Your task to perform on an android device: Open eBay Image 0: 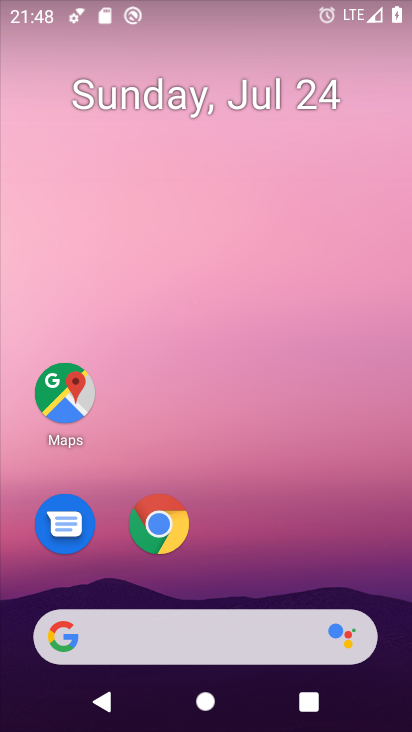
Step 0: click (205, 650)
Your task to perform on an android device: Open eBay Image 1: 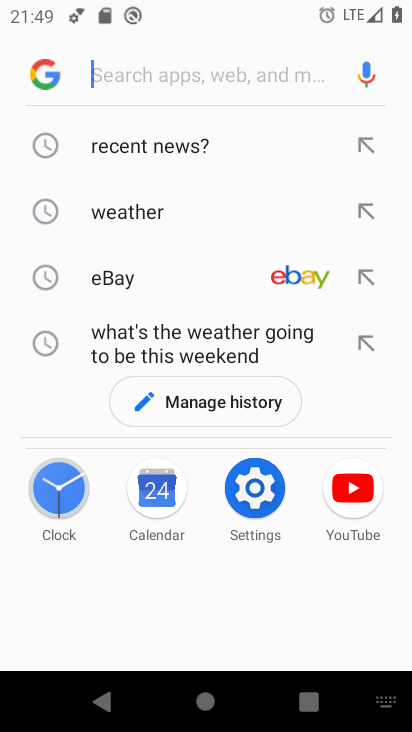
Step 1: click (286, 283)
Your task to perform on an android device: Open eBay Image 2: 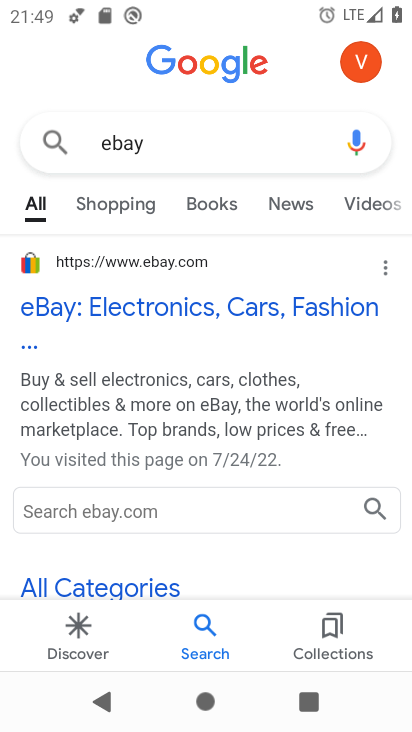
Step 2: click (35, 298)
Your task to perform on an android device: Open eBay Image 3: 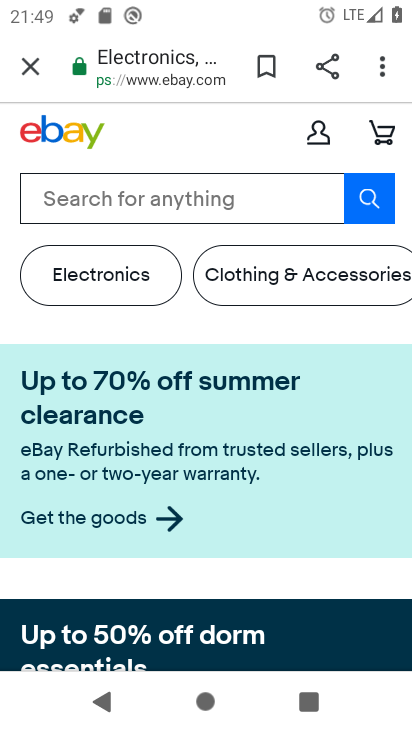
Step 3: task complete